Your task to perform on an android device: Open calendar and show me the fourth week of next month Image 0: 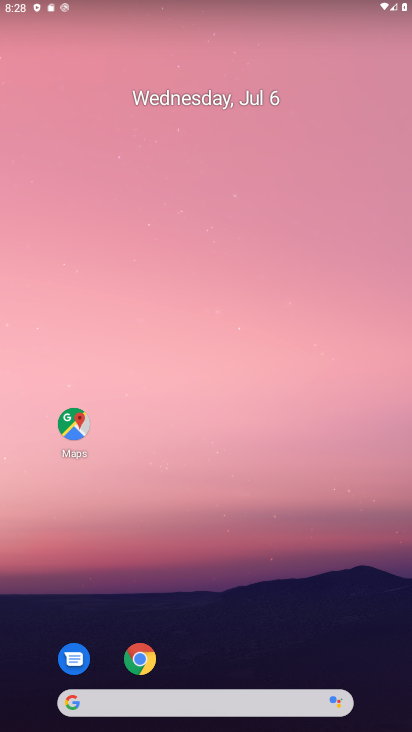
Step 0: drag from (348, 631) to (404, 51)
Your task to perform on an android device: Open calendar and show me the fourth week of next month Image 1: 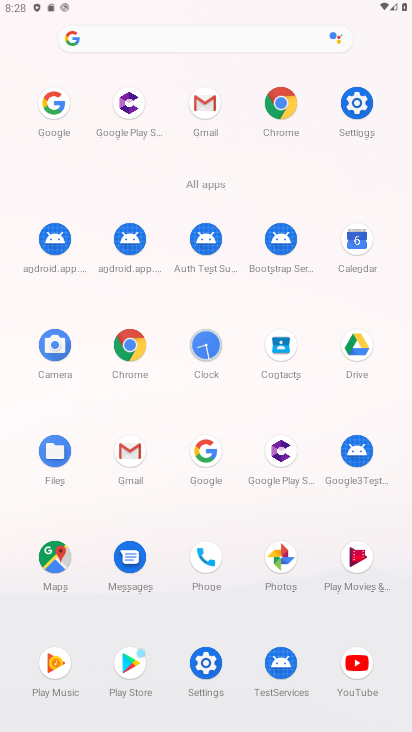
Step 1: click (362, 250)
Your task to perform on an android device: Open calendar and show me the fourth week of next month Image 2: 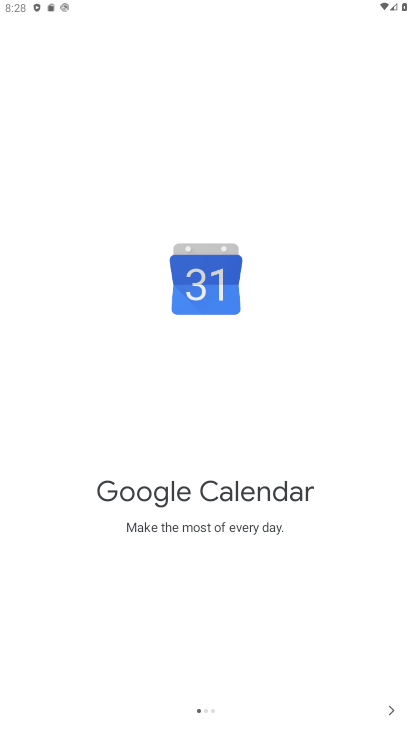
Step 2: click (388, 711)
Your task to perform on an android device: Open calendar and show me the fourth week of next month Image 3: 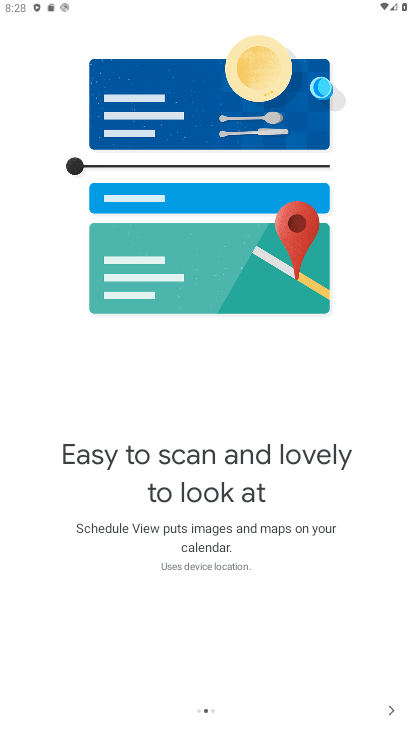
Step 3: click (388, 711)
Your task to perform on an android device: Open calendar and show me the fourth week of next month Image 4: 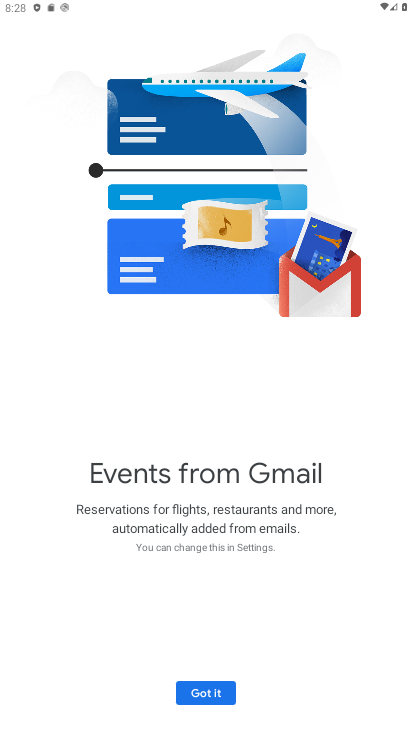
Step 4: click (200, 694)
Your task to perform on an android device: Open calendar and show me the fourth week of next month Image 5: 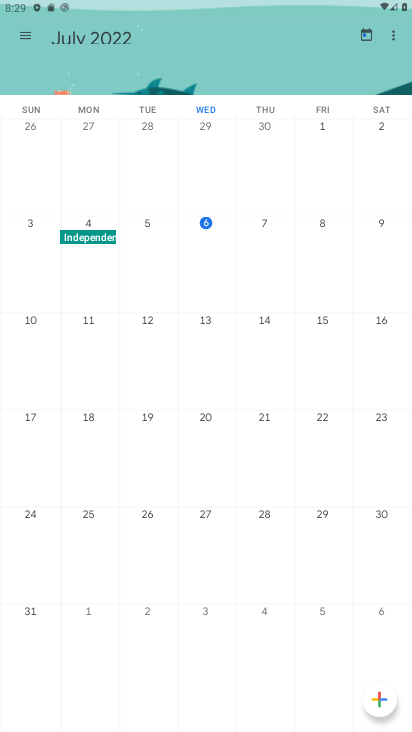
Step 5: click (26, 32)
Your task to perform on an android device: Open calendar and show me the fourth week of next month Image 6: 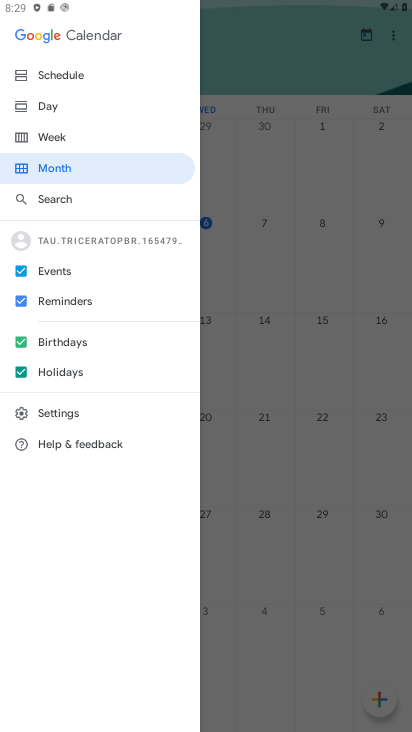
Step 6: click (79, 72)
Your task to perform on an android device: Open calendar and show me the fourth week of next month Image 7: 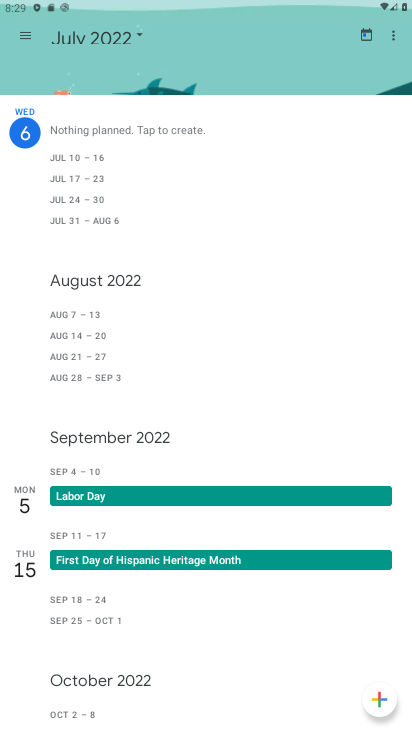
Step 7: click (137, 34)
Your task to perform on an android device: Open calendar and show me the fourth week of next month Image 8: 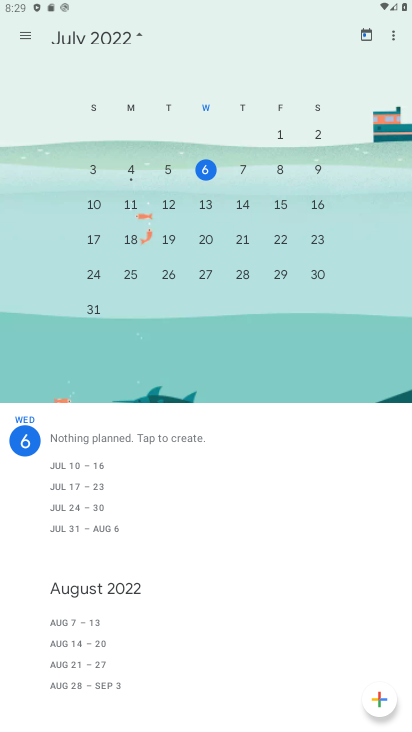
Step 8: drag from (329, 210) to (11, 190)
Your task to perform on an android device: Open calendar and show me the fourth week of next month Image 9: 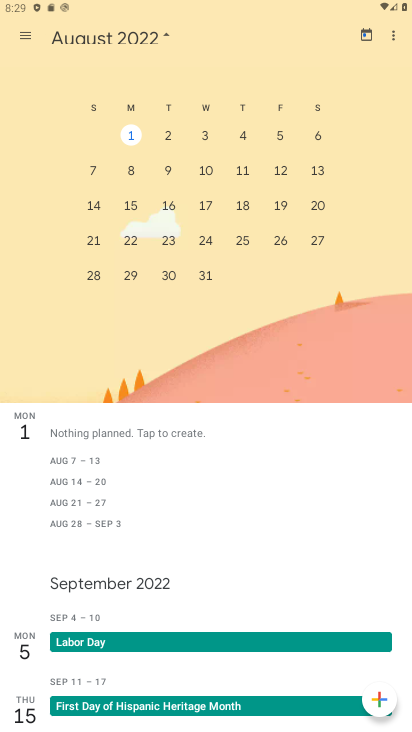
Step 9: click (134, 237)
Your task to perform on an android device: Open calendar and show me the fourth week of next month Image 10: 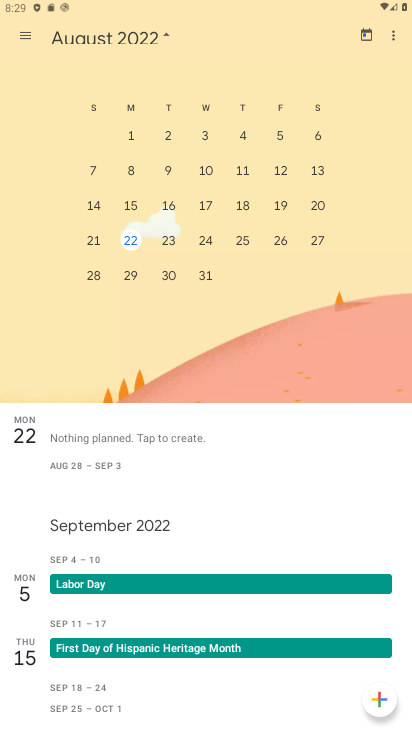
Step 10: task complete